Your task to perform on an android device: Is it going to rain this weekend? Image 0: 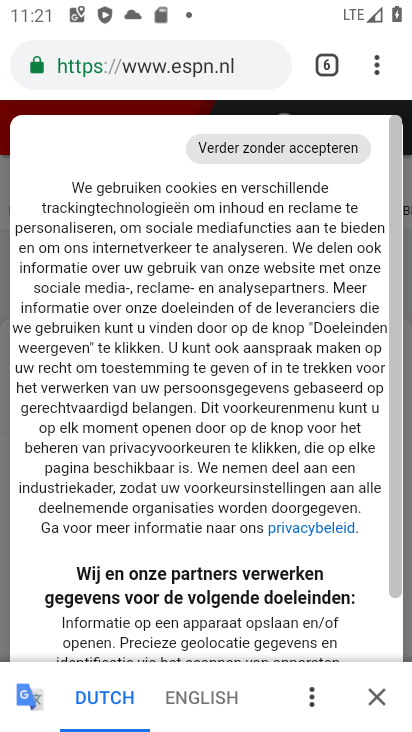
Step 0: press home button
Your task to perform on an android device: Is it going to rain this weekend? Image 1: 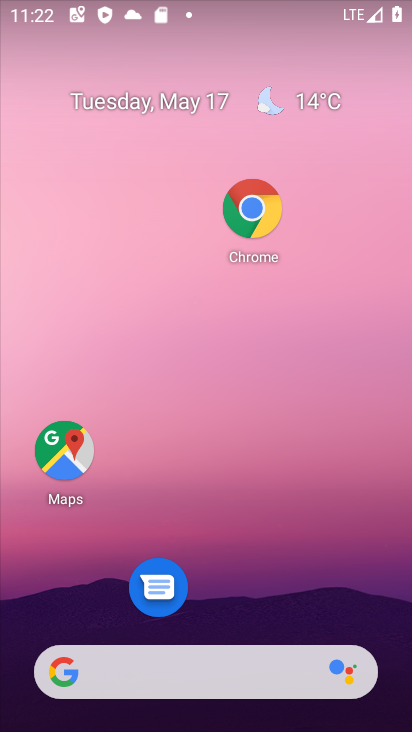
Step 1: click (325, 100)
Your task to perform on an android device: Is it going to rain this weekend? Image 2: 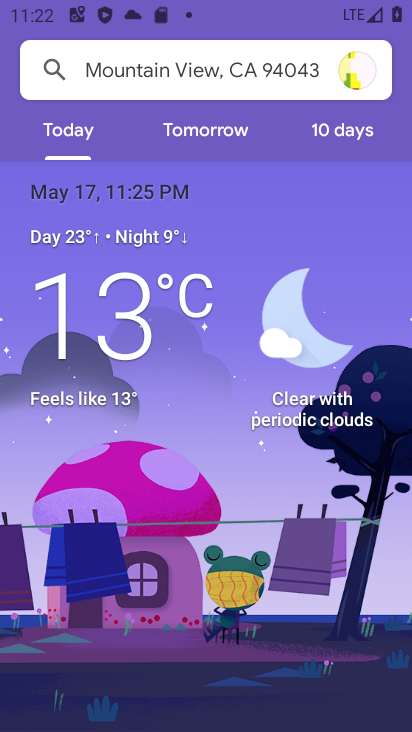
Step 2: click (329, 130)
Your task to perform on an android device: Is it going to rain this weekend? Image 3: 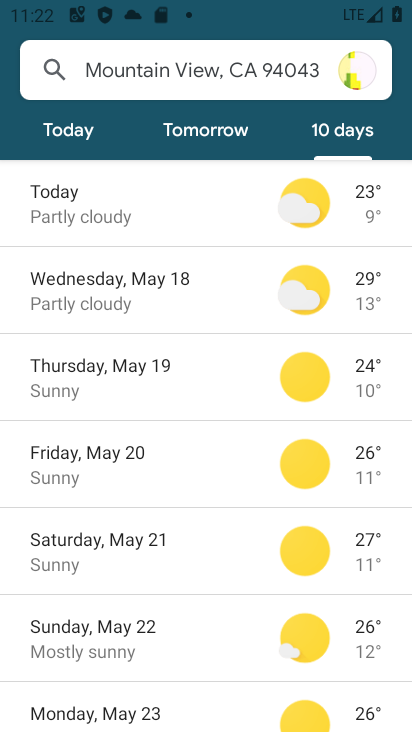
Step 3: task complete